Your task to perform on an android device: see sites visited before in the chrome app Image 0: 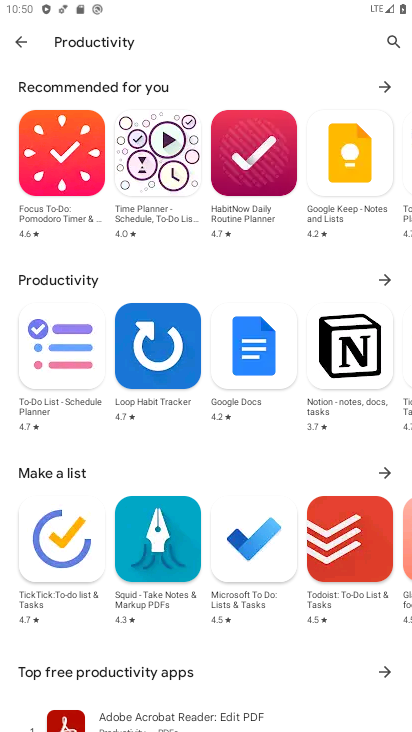
Step 0: press home button
Your task to perform on an android device: see sites visited before in the chrome app Image 1: 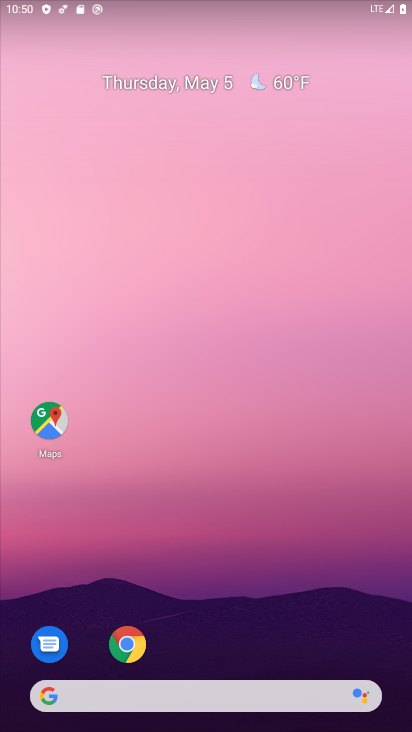
Step 1: drag from (355, 602) to (376, 230)
Your task to perform on an android device: see sites visited before in the chrome app Image 2: 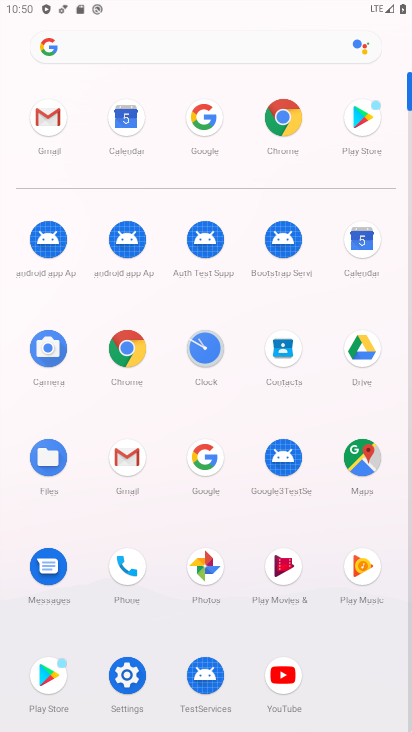
Step 2: click (136, 352)
Your task to perform on an android device: see sites visited before in the chrome app Image 3: 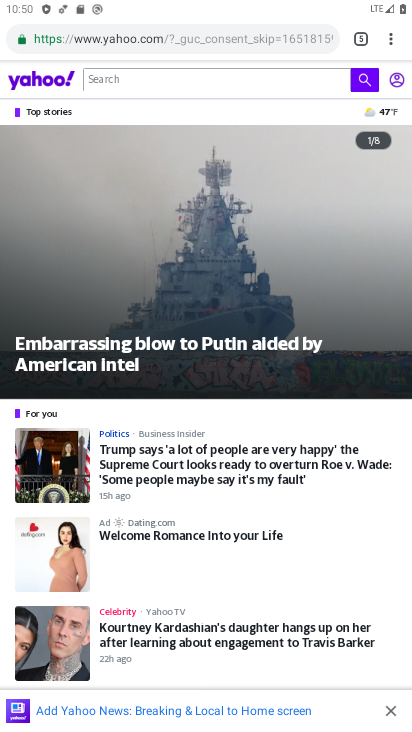
Step 3: click (209, 37)
Your task to perform on an android device: see sites visited before in the chrome app Image 4: 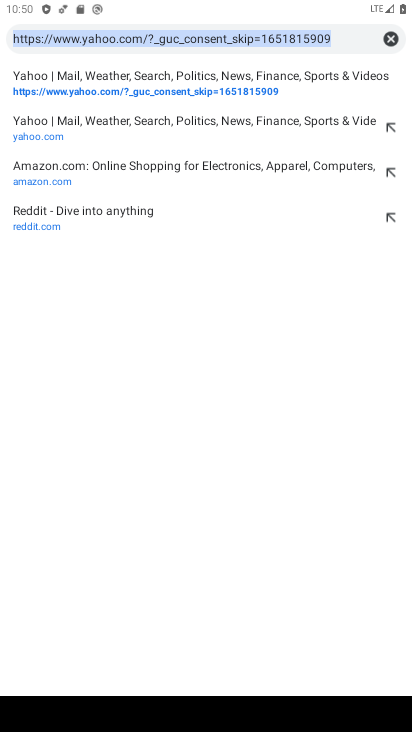
Step 4: click (389, 39)
Your task to perform on an android device: see sites visited before in the chrome app Image 5: 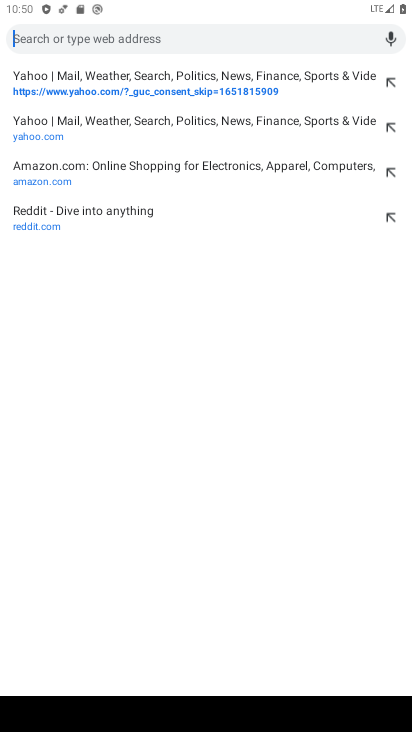
Step 5: task complete